Your task to perform on an android device: Open ESPN.com Image 0: 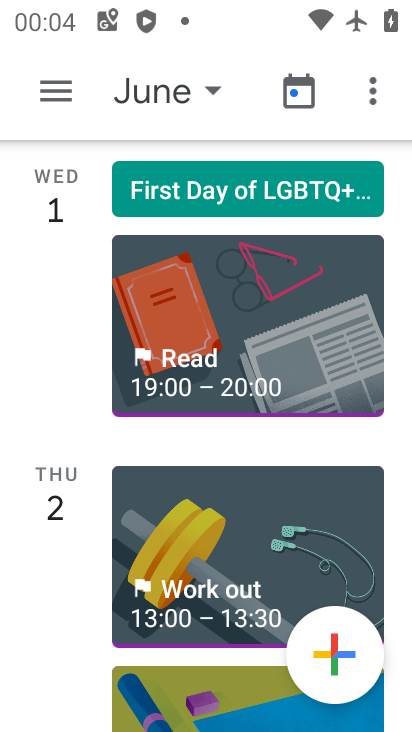
Step 0: press home button
Your task to perform on an android device: Open ESPN.com Image 1: 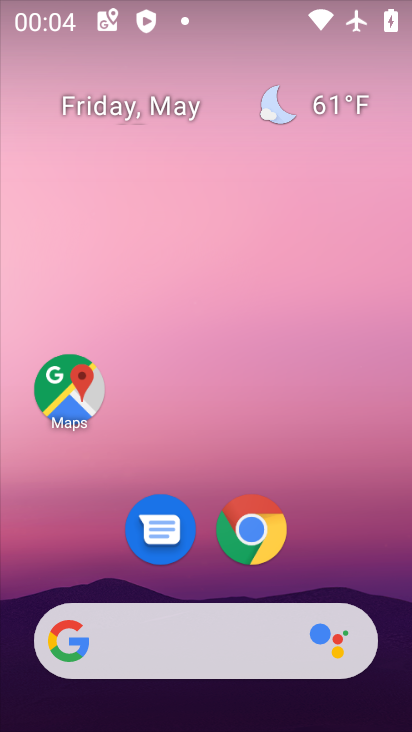
Step 1: click (199, 642)
Your task to perform on an android device: Open ESPN.com Image 2: 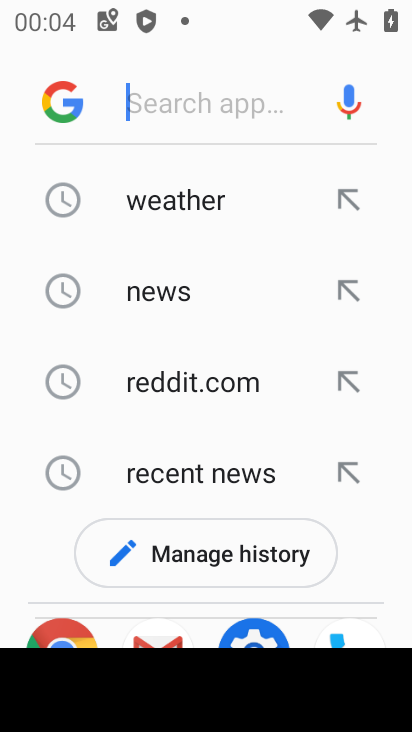
Step 2: type "espn.com"
Your task to perform on an android device: Open ESPN.com Image 3: 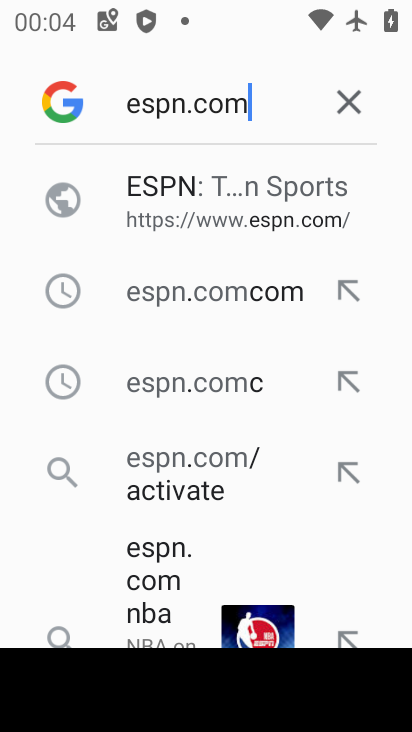
Step 3: click (263, 241)
Your task to perform on an android device: Open ESPN.com Image 4: 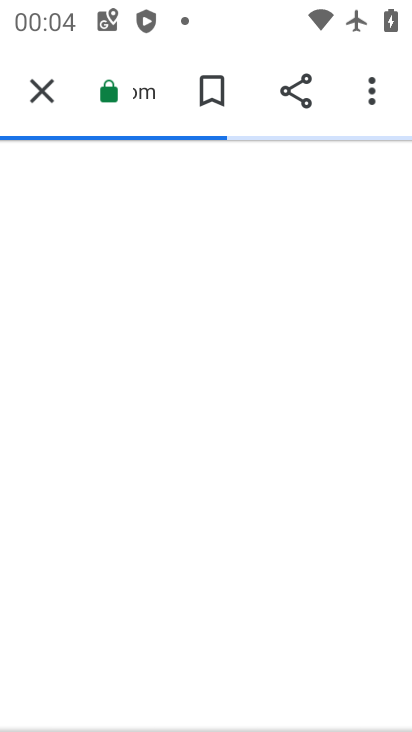
Step 4: task complete